Your task to perform on an android device: toggle airplane mode Image 0: 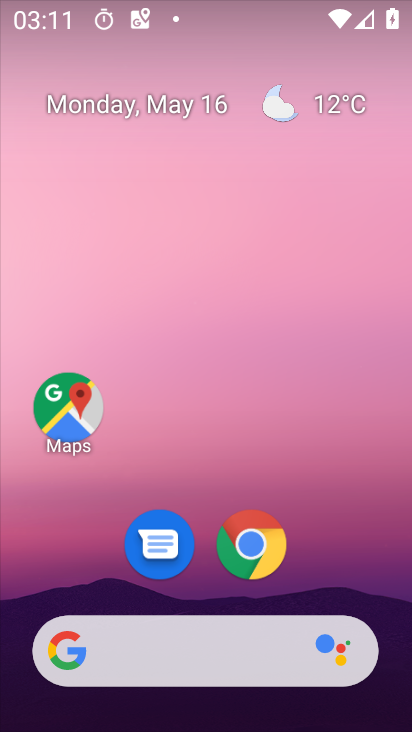
Step 0: drag from (204, 725) to (200, 183)
Your task to perform on an android device: toggle airplane mode Image 1: 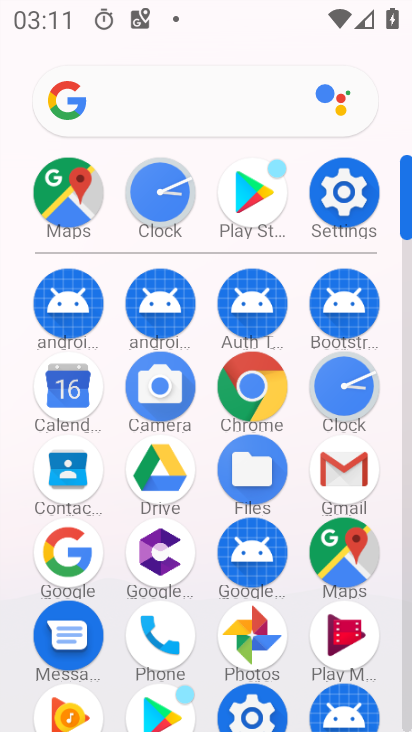
Step 1: click (338, 189)
Your task to perform on an android device: toggle airplane mode Image 2: 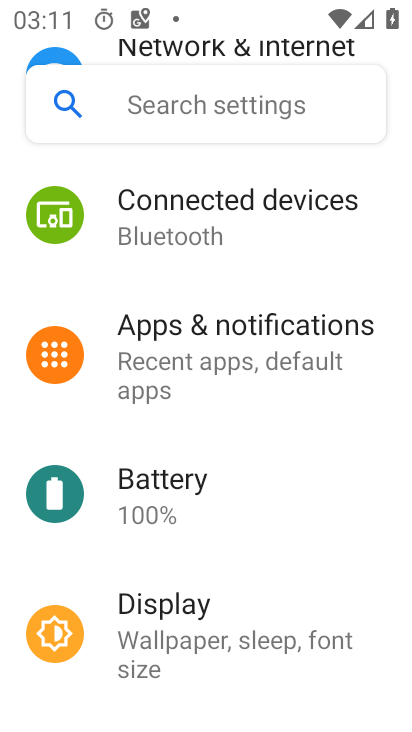
Step 2: drag from (264, 167) to (268, 547)
Your task to perform on an android device: toggle airplane mode Image 3: 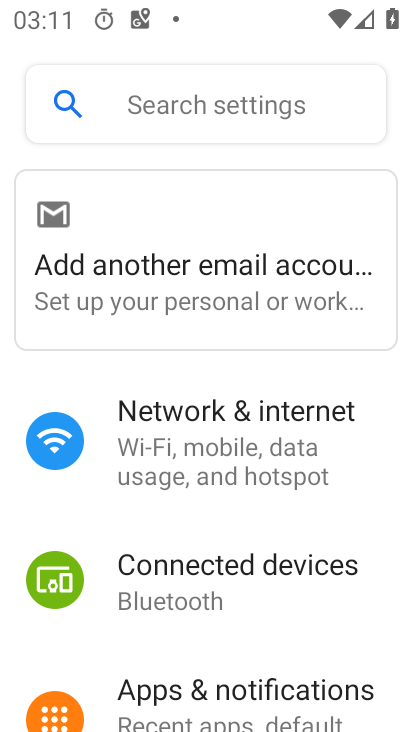
Step 3: click (174, 435)
Your task to perform on an android device: toggle airplane mode Image 4: 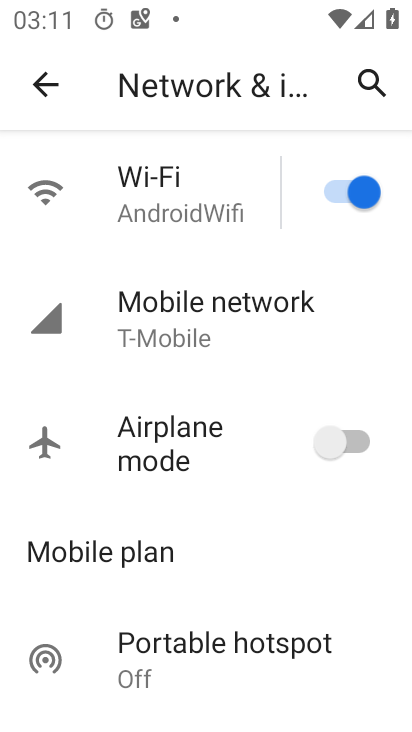
Step 4: click (357, 438)
Your task to perform on an android device: toggle airplane mode Image 5: 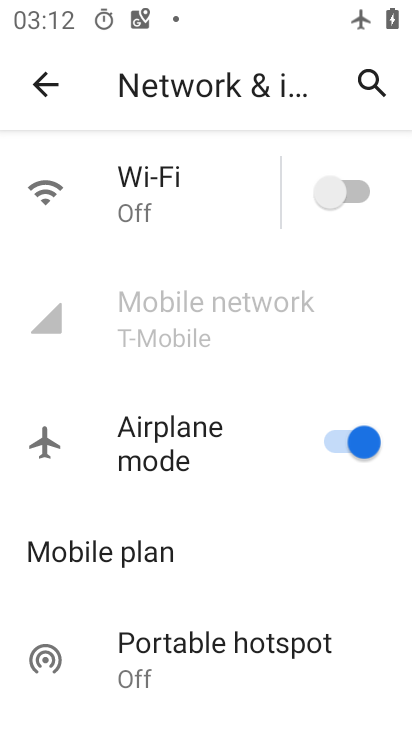
Step 5: task complete